Your task to perform on an android device: set an alarm Image 0: 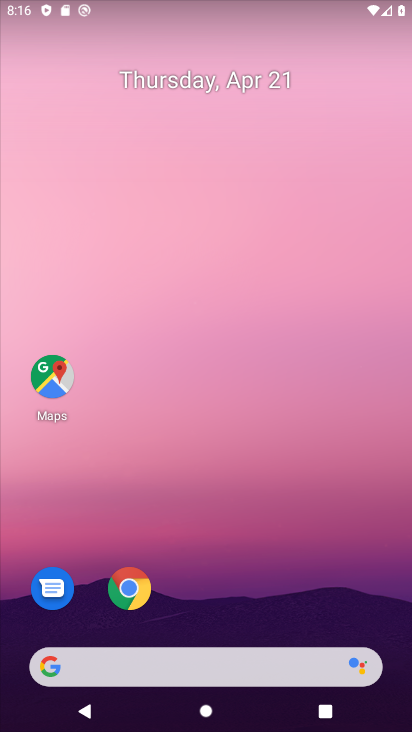
Step 0: drag from (231, 561) to (191, 52)
Your task to perform on an android device: set an alarm Image 1: 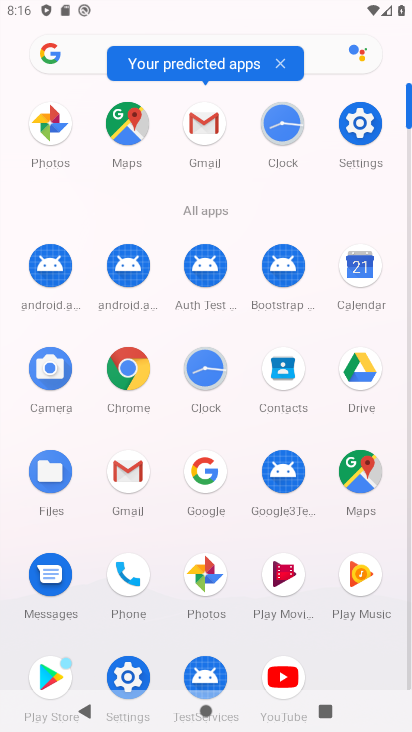
Step 1: click (282, 121)
Your task to perform on an android device: set an alarm Image 2: 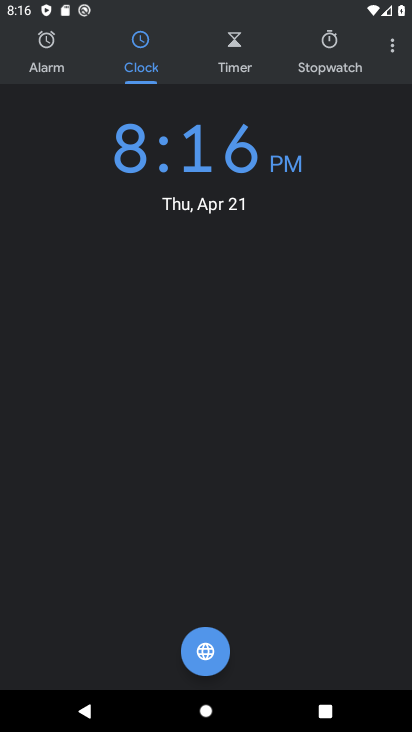
Step 2: click (48, 46)
Your task to perform on an android device: set an alarm Image 3: 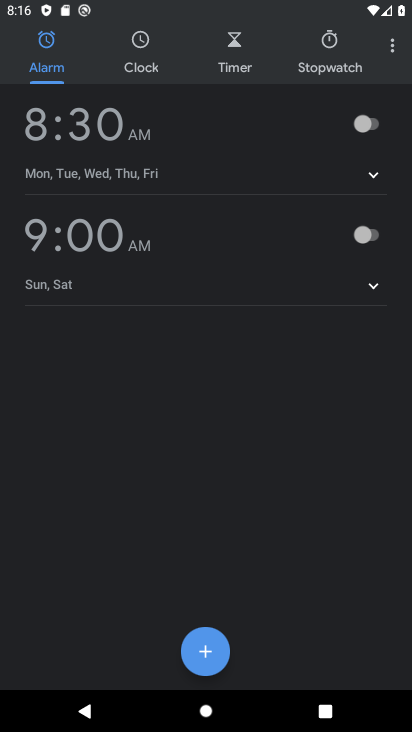
Step 3: click (207, 652)
Your task to perform on an android device: set an alarm Image 4: 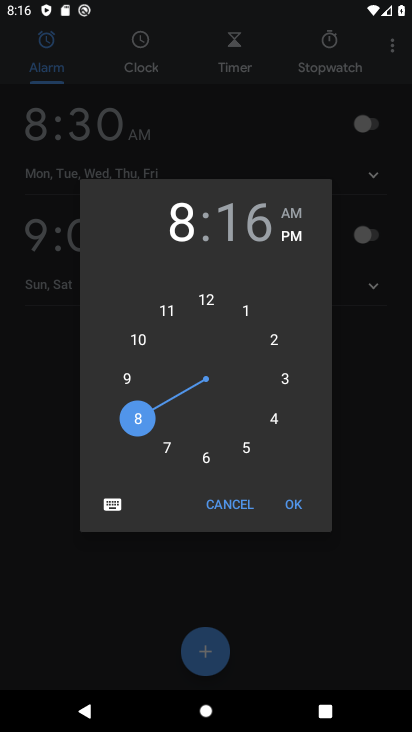
Step 4: click (146, 344)
Your task to perform on an android device: set an alarm Image 5: 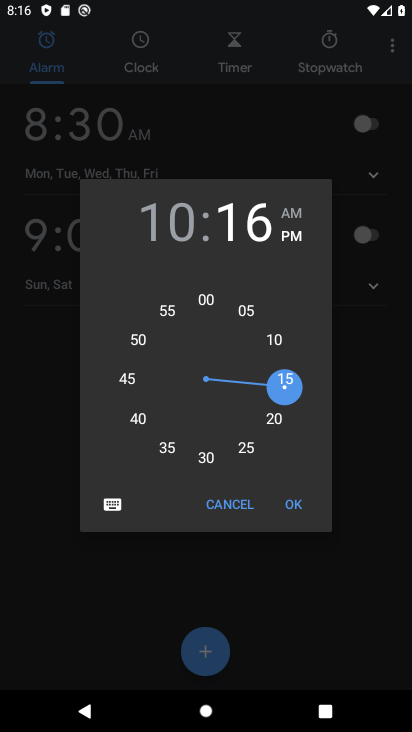
Step 5: drag from (280, 379) to (170, 294)
Your task to perform on an android device: set an alarm Image 6: 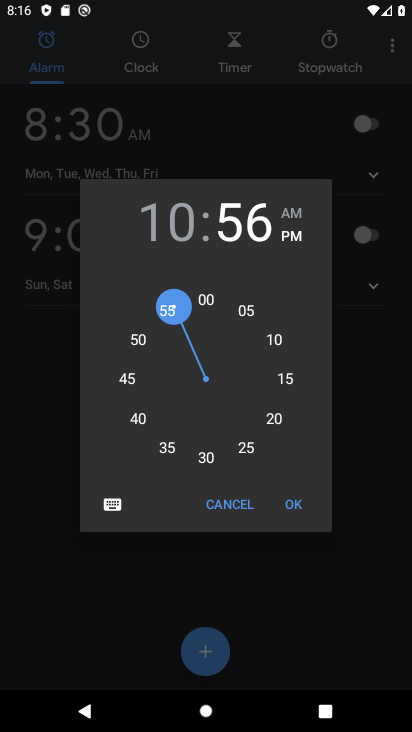
Step 6: click (295, 214)
Your task to perform on an android device: set an alarm Image 7: 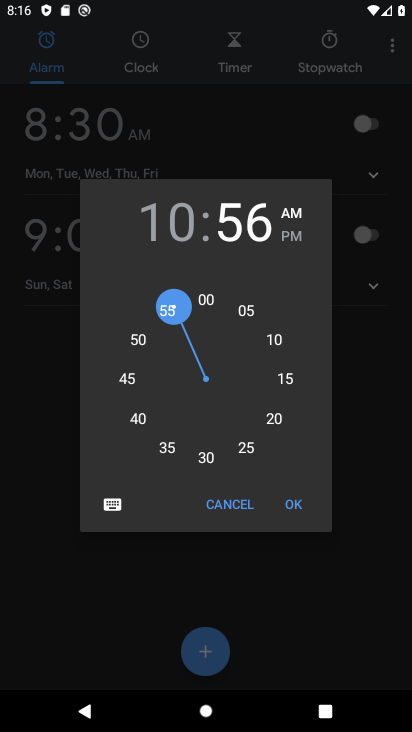
Step 7: click (293, 506)
Your task to perform on an android device: set an alarm Image 8: 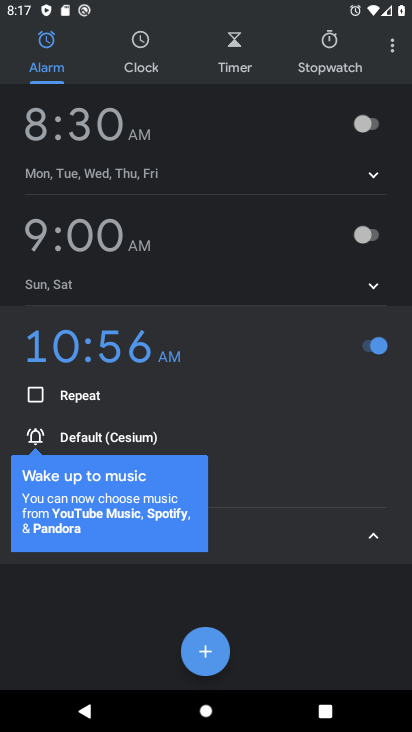
Step 8: click (190, 311)
Your task to perform on an android device: set an alarm Image 9: 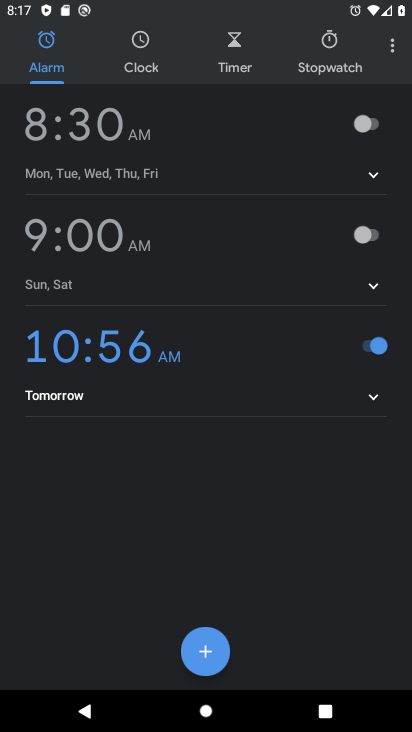
Step 9: task complete